Your task to perform on an android device: Go to network settings Image 0: 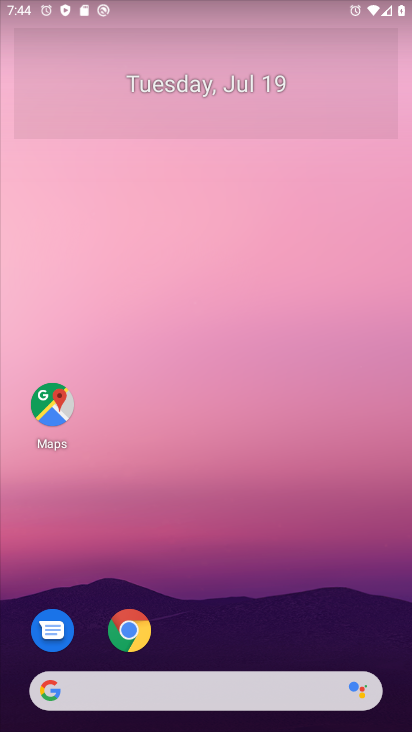
Step 0: drag from (191, 406) to (234, 64)
Your task to perform on an android device: Go to network settings Image 1: 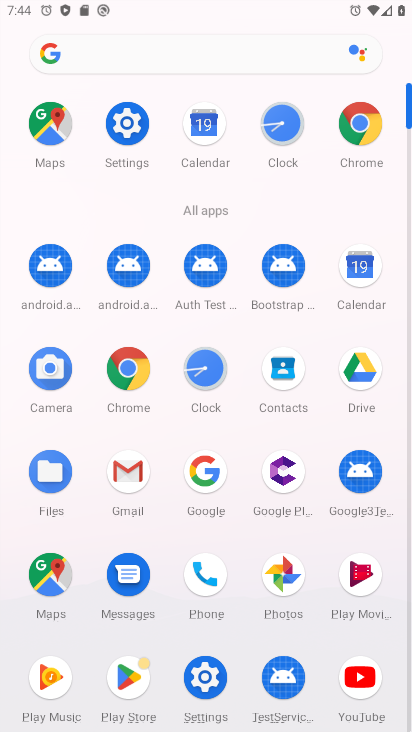
Step 1: click (204, 667)
Your task to perform on an android device: Go to network settings Image 2: 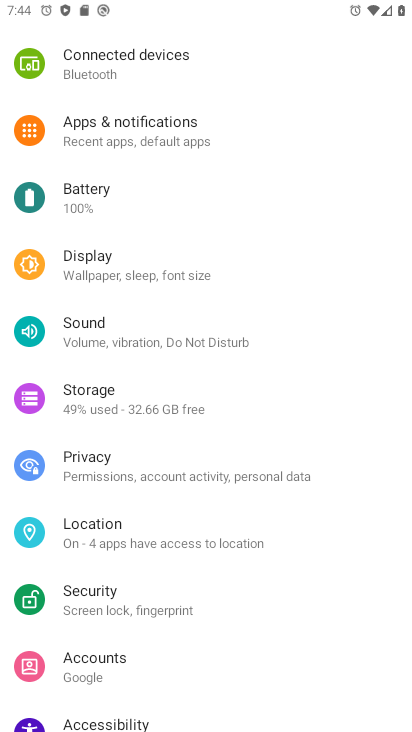
Step 2: click (146, 59)
Your task to perform on an android device: Go to network settings Image 3: 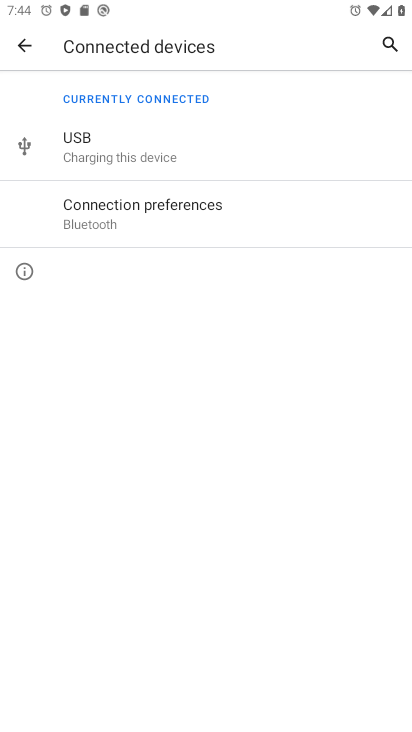
Step 3: click (21, 52)
Your task to perform on an android device: Go to network settings Image 4: 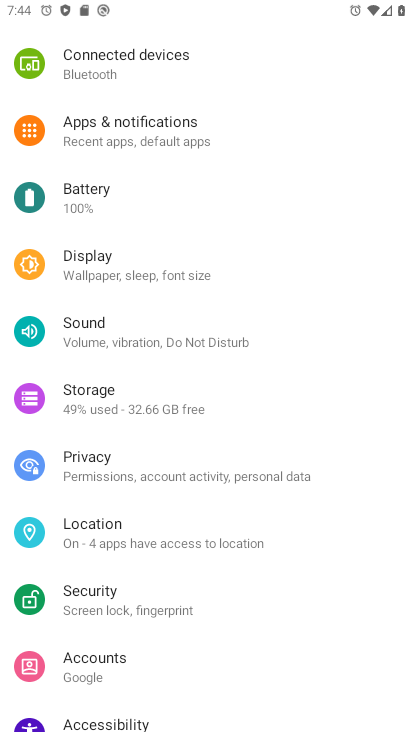
Step 4: drag from (185, 93) to (200, 370)
Your task to perform on an android device: Go to network settings Image 5: 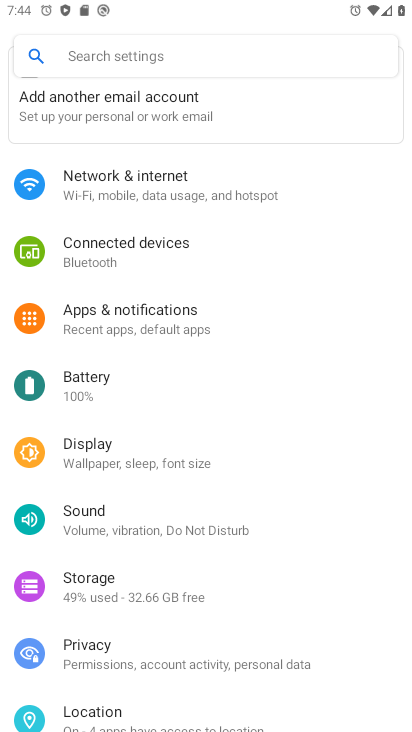
Step 5: click (160, 165)
Your task to perform on an android device: Go to network settings Image 6: 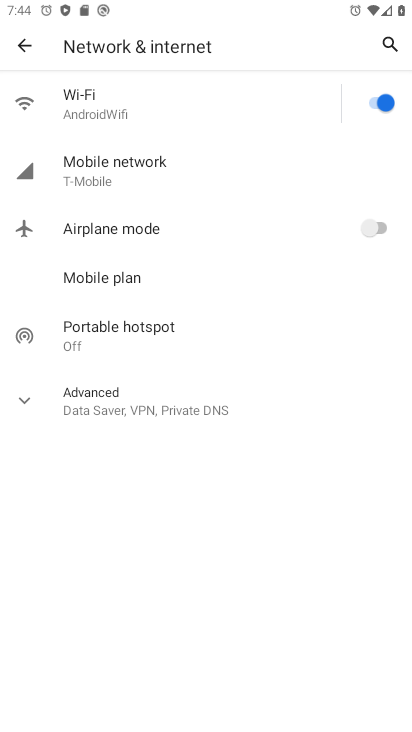
Step 6: task complete